Your task to perform on an android device: Go to Google maps Image 0: 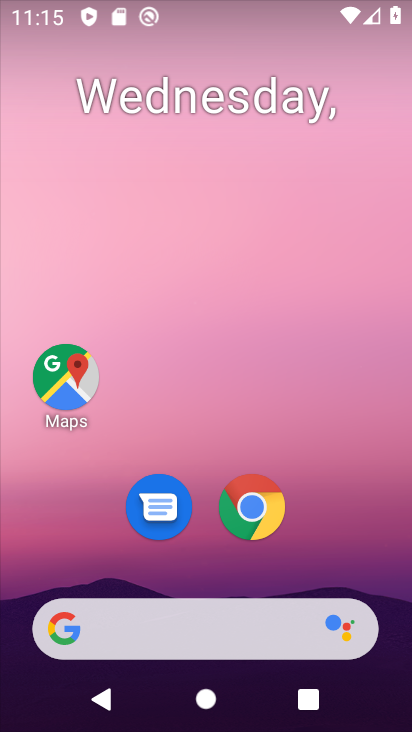
Step 0: click (58, 390)
Your task to perform on an android device: Go to Google maps Image 1: 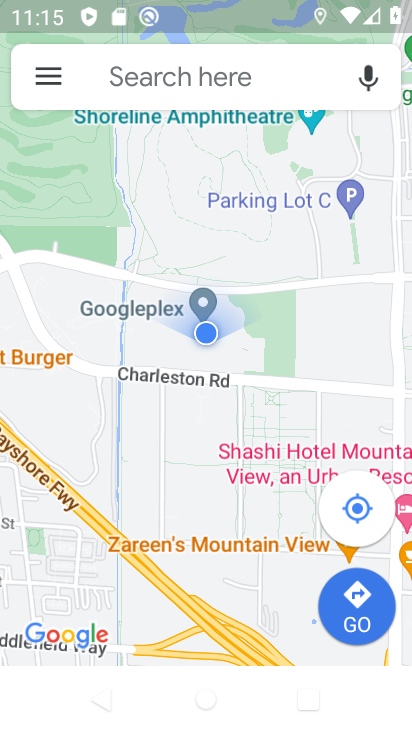
Step 1: task complete